Your task to perform on an android device: see sites visited before in the chrome app Image 0: 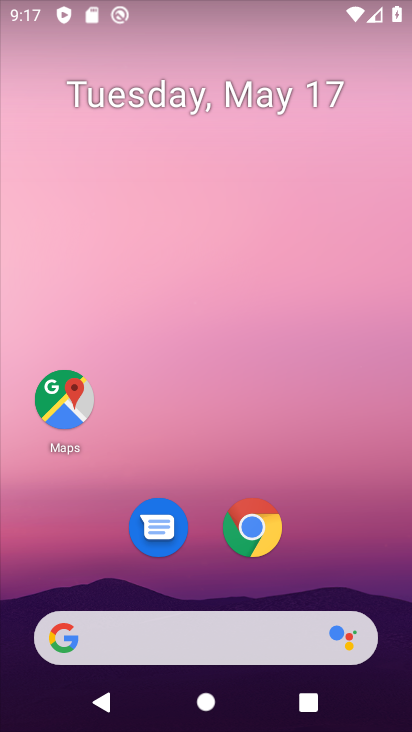
Step 0: click (254, 527)
Your task to perform on an android device: see sites visited before in the chrome app Image 1: 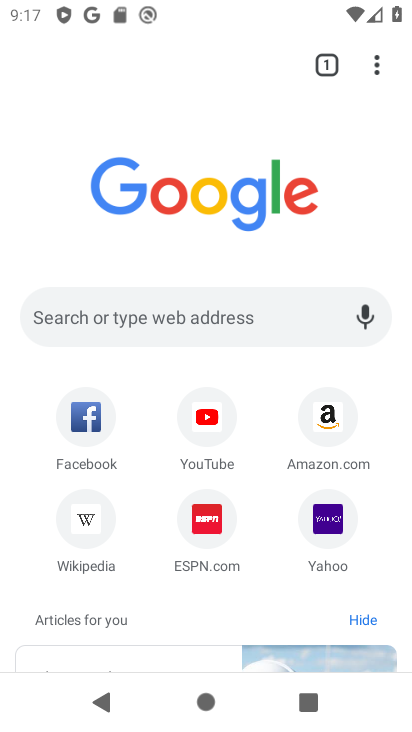
Step 1: click (377, 66)
Your task to perform on an android device: see sites visited before in the chrome app Image 2: 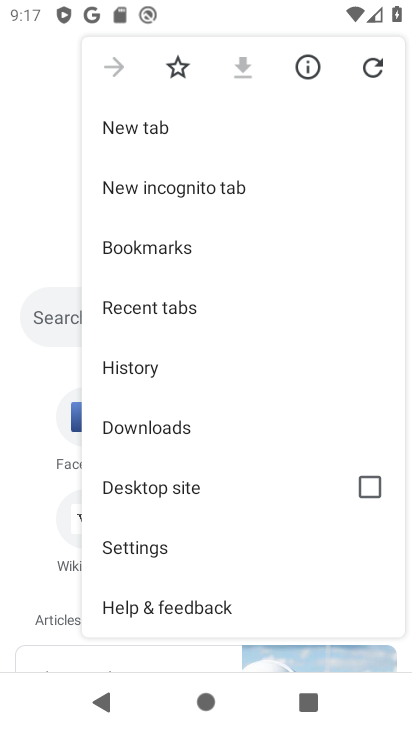
Step 2: click (154, 361)
Your task to perform on an android device: see sites visited before in the chrome app Image 3: 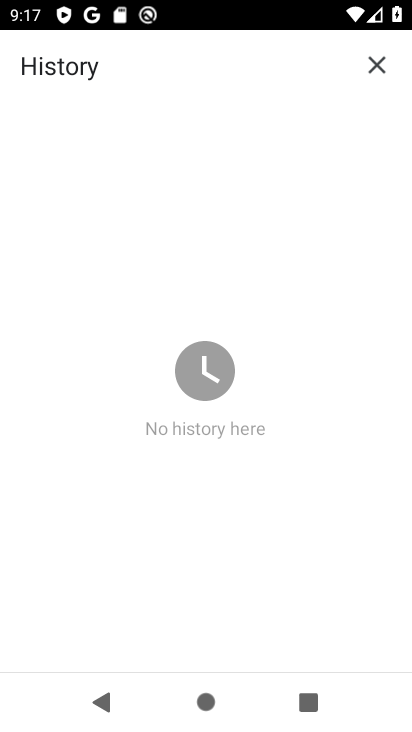
Step 3: task complete